Your task to perform on an android device: manage bookmarks in the chrome app Image 0: 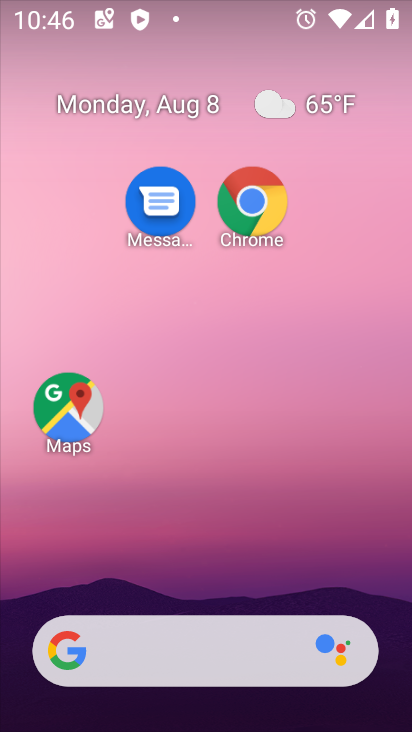
Step 0: press home button
Your task to perform on an android device: manage bookmarks in the chrome app Image 1: 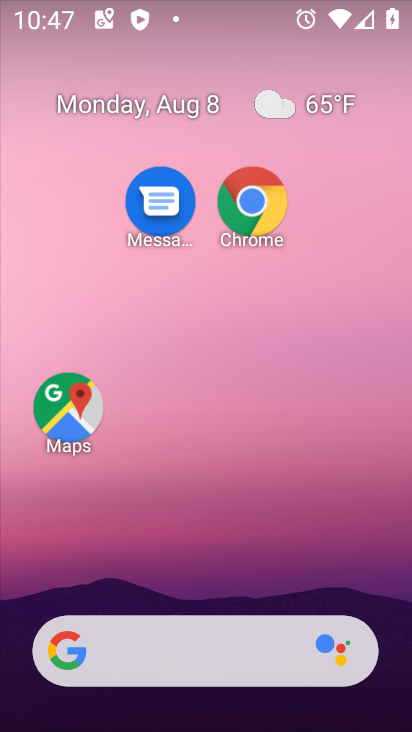
Step 1: click (247, 194)
Your task to perform on an android device: manage bookmarks in the chrome app Image 2: 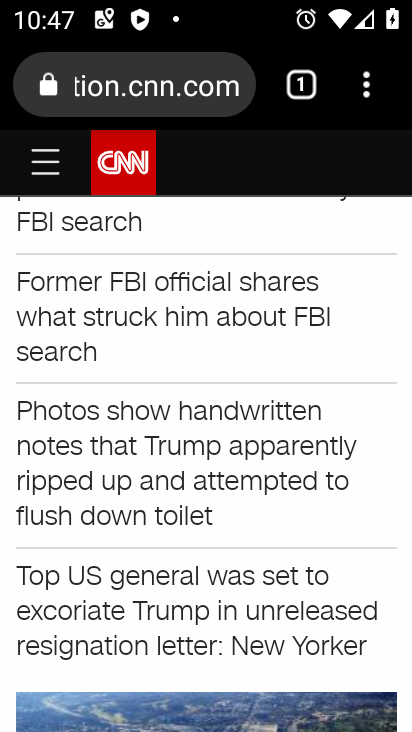
Step 2: click (365, 92)
Your task to perform on an android device: manage bookmarks in the chrome app Image 3: 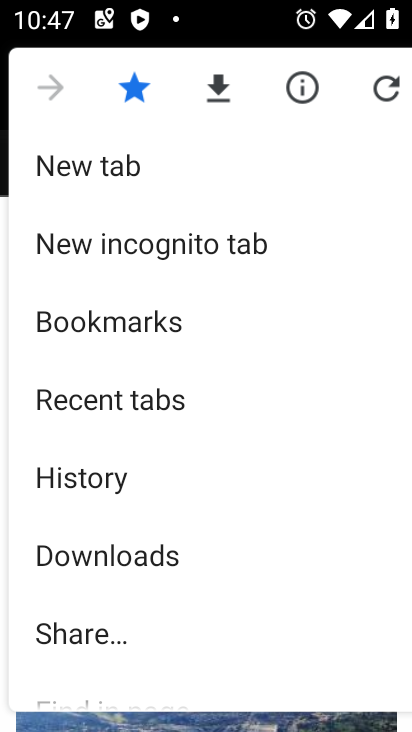
Step 3: click (186, 623)
Your task to perform on an android device: manage bookmarks in the chrome app Image 4: 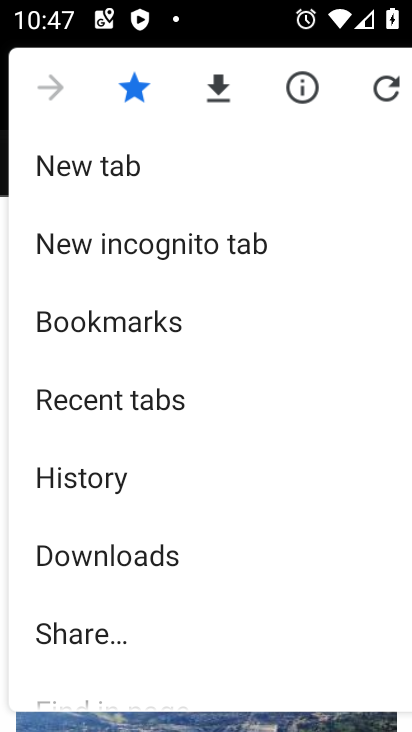
Step 4: click (188, 322)
Your task to perform on an android device: manage bookmarks in the chrome app Image 5: 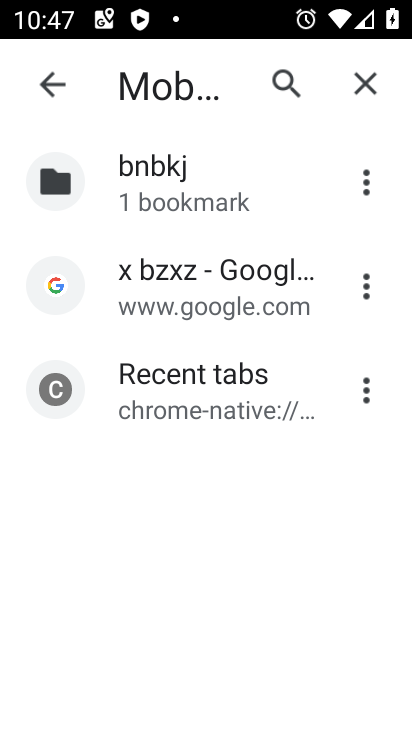
Step 5: click (360, 186)
Your task to perform on an android device: manage bookmarks in the chrome app Image 6: 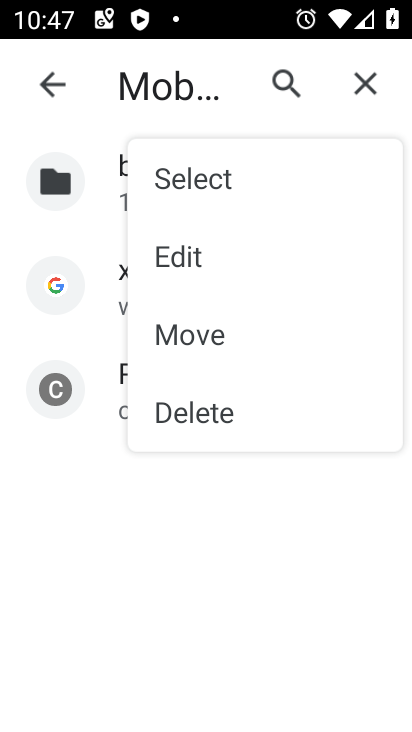
Step 6: click (247, 403)
Your task to perform on an android device: manage bookmarks in the chrome app Image 7: 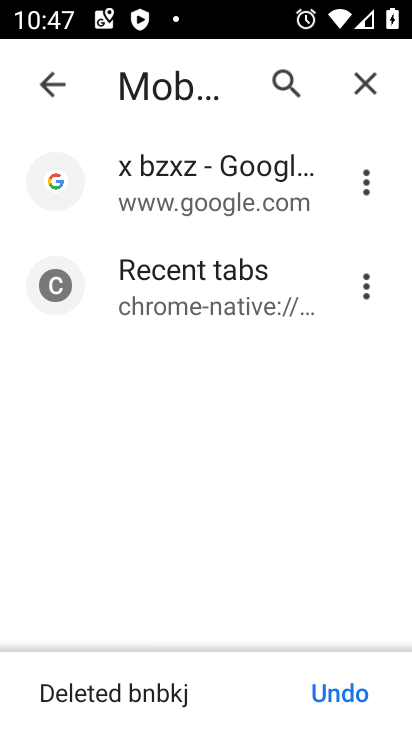
Step 7: task complete